Your task to perform on an android device: Go to Amazon Image 0: 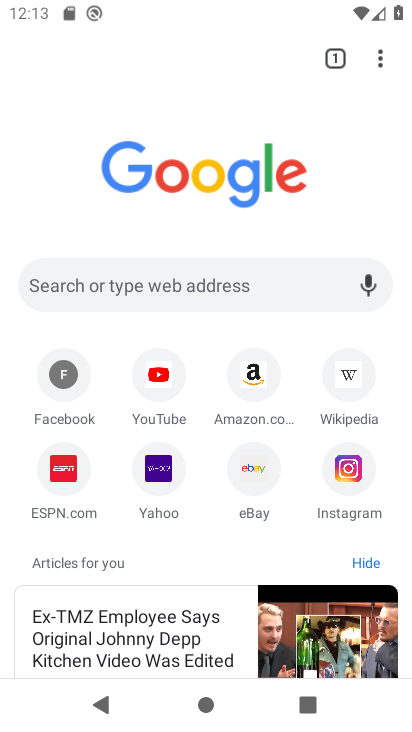
Step 0: press home button
Your task to perform on an android device: Go to Amazon Image 1: 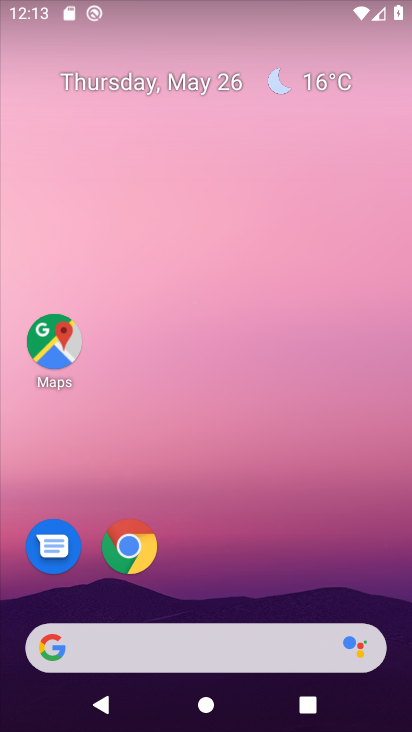
Step 1: click (125, 546)
Your task to perform on an android device: Go to Amazon Image 2: 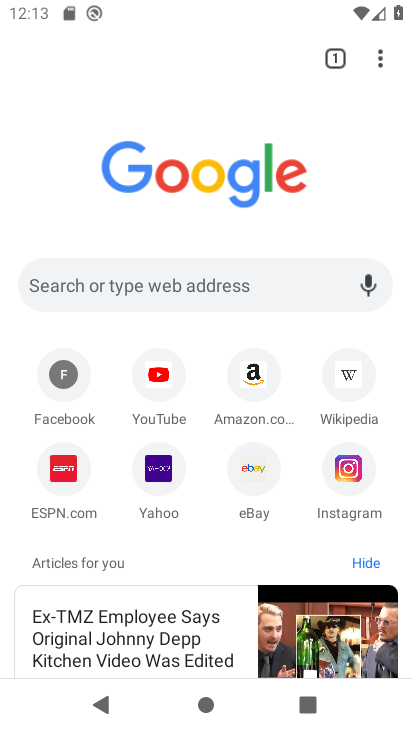
Step 2: click (84, 291)
Your task to perform on an android device: Go to Amazon Image 3: 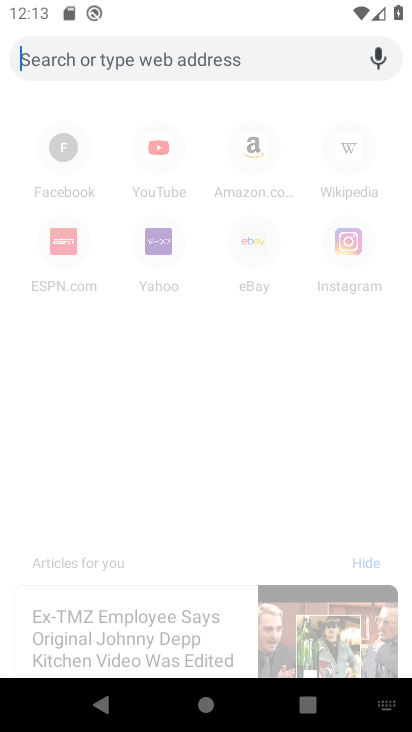
Step 3: type "Amazon"
Your task to perform on an android device: Go to Amazon Image 4: 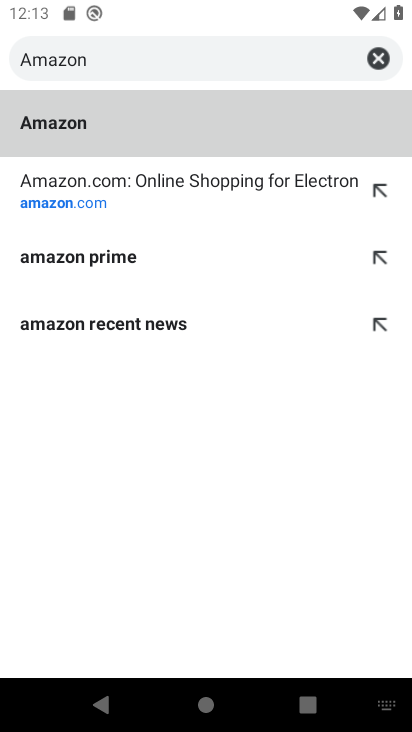
Step 4: click (82, 121)
Your task to perform on an android device: Go to Amazon Image 5: 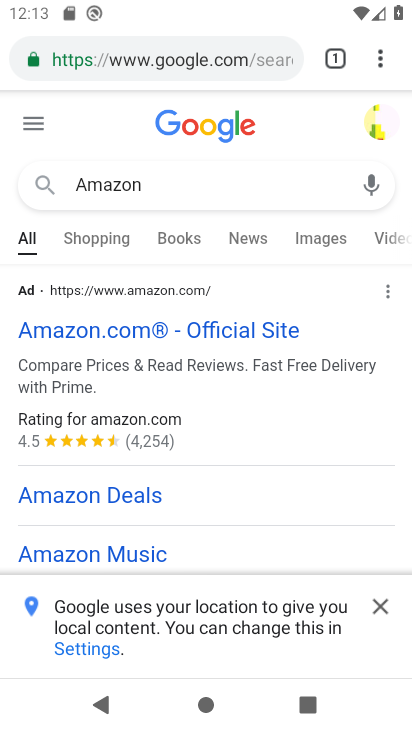
Step 5: task complete